Your task to perform on an android device: find snoozed emails in the gmail app Image 0: 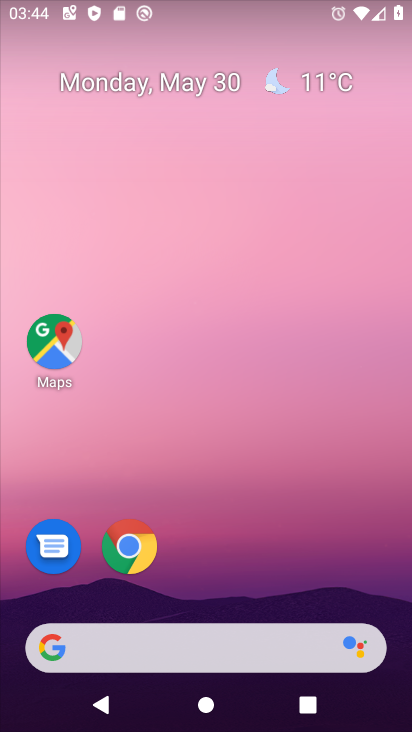
Step 0: press home button
Your task to perform on an android device: find snoozed emails in the gmail app Image 1: 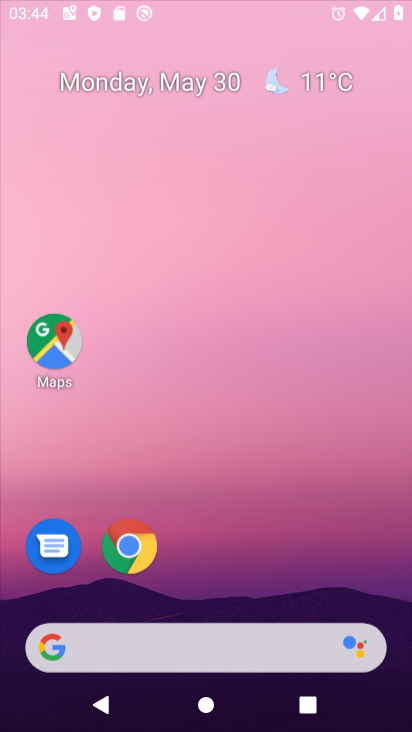
Step 1: drag from (209, 600) to (275, 114)
Your task to perform on an android device: find snoozed emails in the gmail app Image 2: 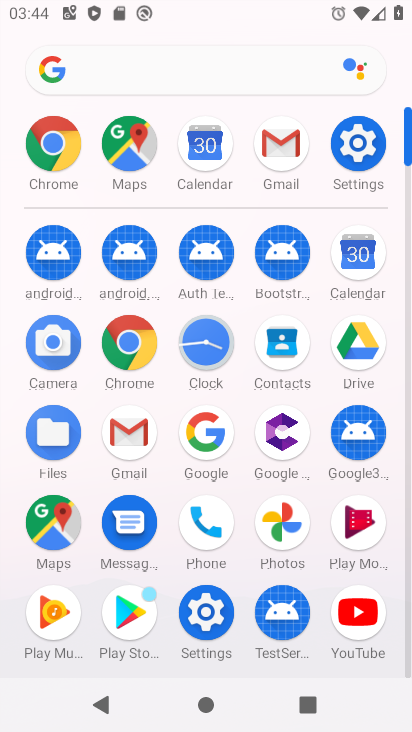
Step 2: click (130, 421)
Your task to perform on an android device: find snoozed emails in the gmail app Image 3: 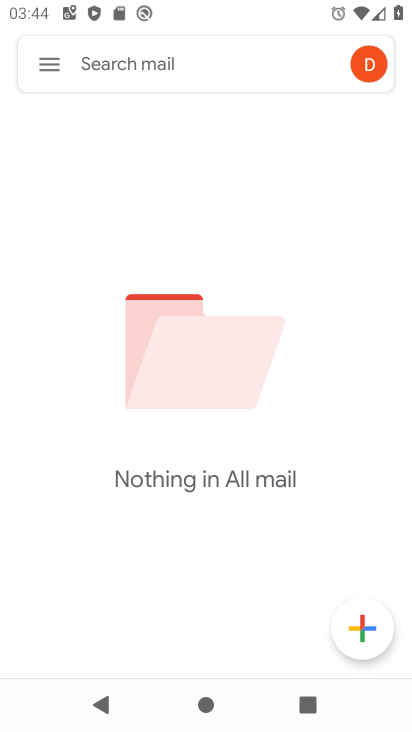
Step 3: click (45, 65)
Your task to perform on an android device: find snoozed emails in the gmail app Image 4: 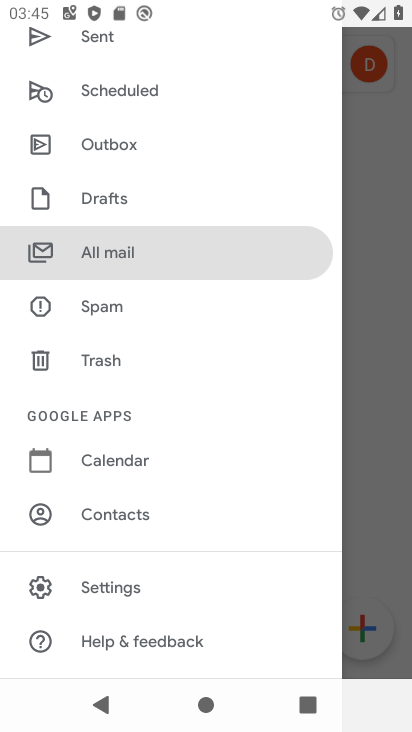
Step 4: drag from (158, 92) to (117, 641)
Your task to perform on an android device: find snoozed emails in the gmail app Image 5: 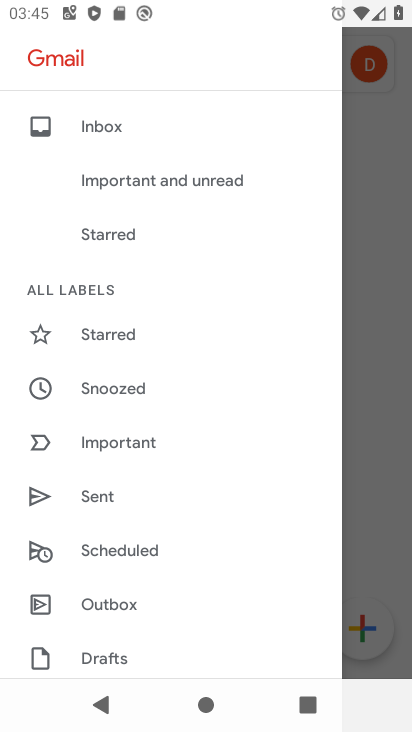
Step 5: click (167, 383)
Your task to perform on an android device: find snoozed emails in the gmail app Image 6: 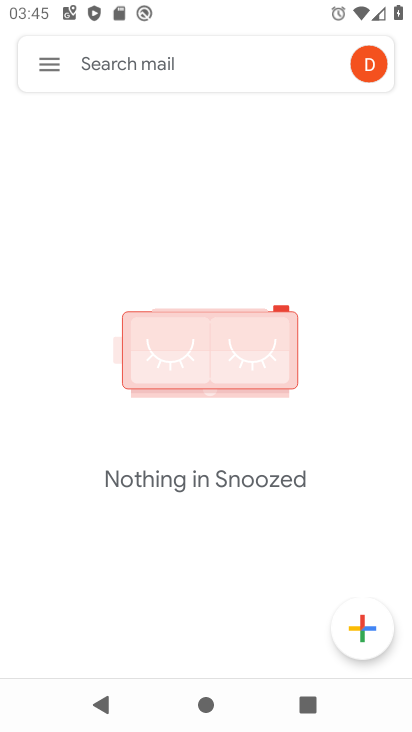
Step 6: task complete